Your task to perform on an android device: Go to privacy settings Image 0: 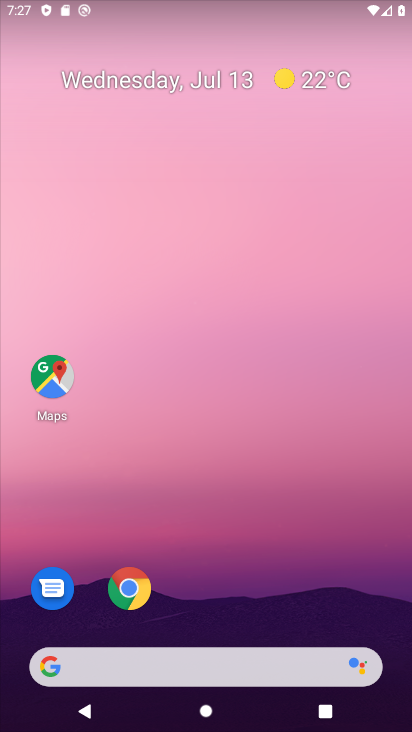
Step 0: drag from (273, 594) to (287, 154)
Your task to perform on an android device: Go to privacy settings Image 1: 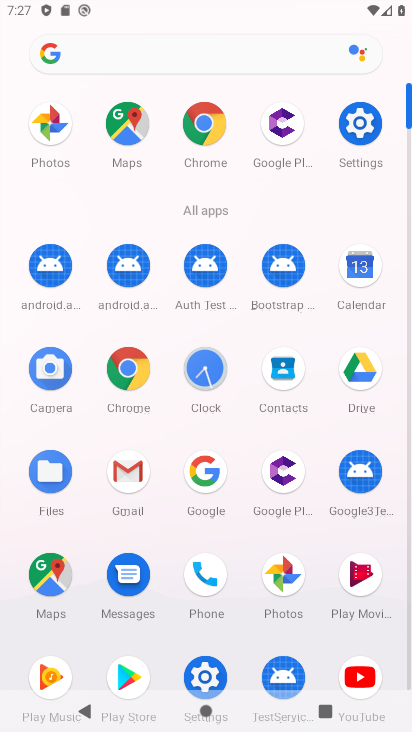
Step 1: click (355, 120)
Your task to perform on an android device: Go to privacy settings Image 2: 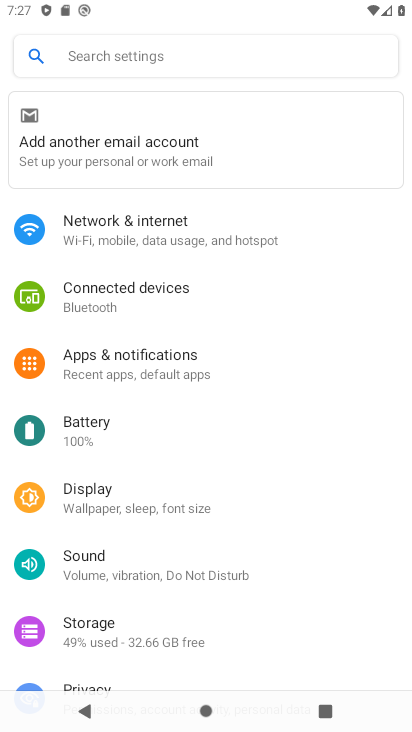
Step 2: drag from (145, 622) to (187, 382)
Your task to perform on an android device: Go to privacy settings Image 3: 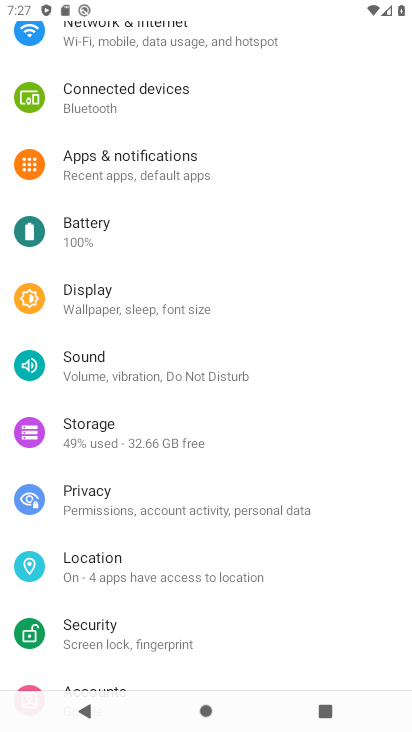
Step 3: click (143, 482)
Your task to perform on an android device: Go to privacy settings Image 4: 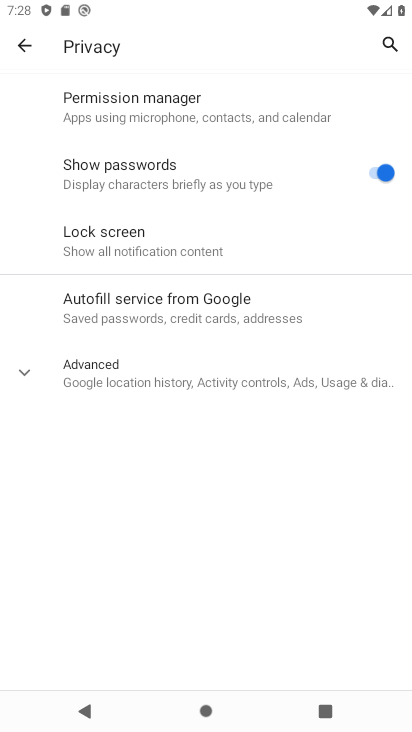
Step 4: task complete